Your task to perform on an android device: refresh tabs in the chrome app Image 0: 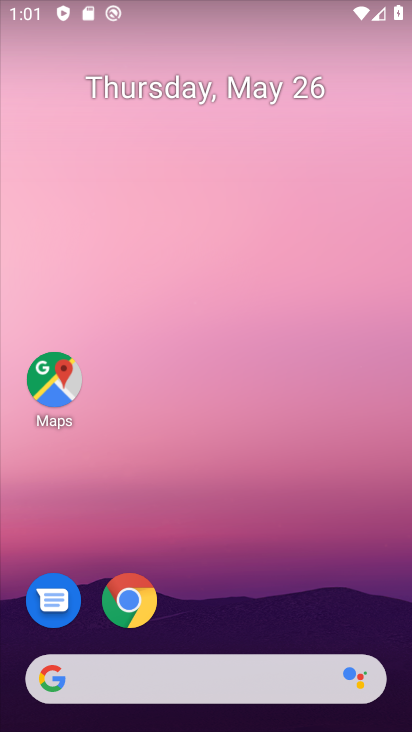
Step 0: click (127, 602)
Your task to perform on an android device: refresh tabs in the chrome app Image 1: 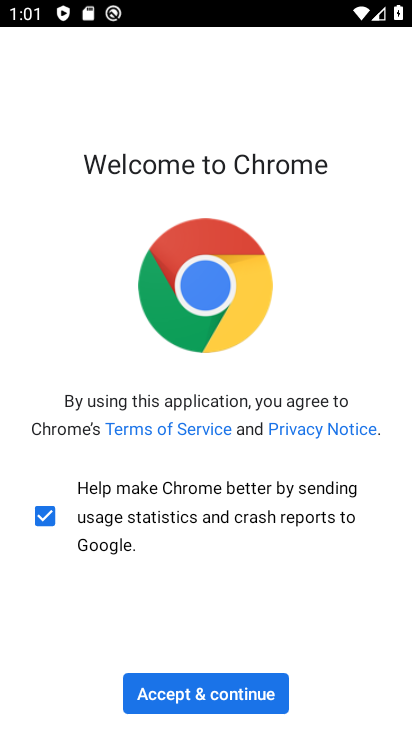
Step 1: click (194, 690)
Your task to perform on an android device: refresh tabs in the chrome app Image 2: 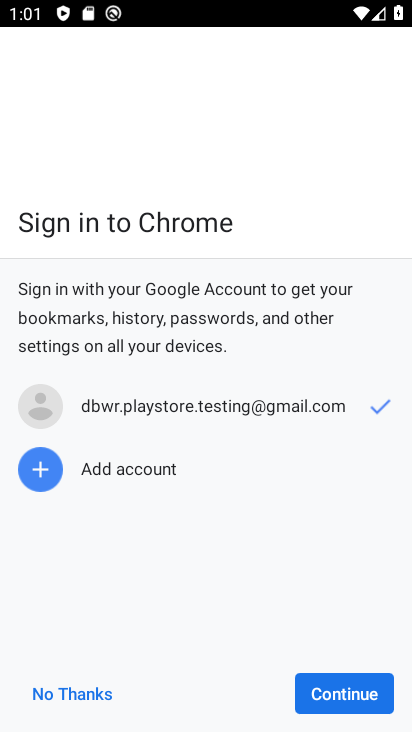
Step 2: click (333, 691)
Your task to perform on an android device: refresh tabs in the chrome app Image 3: 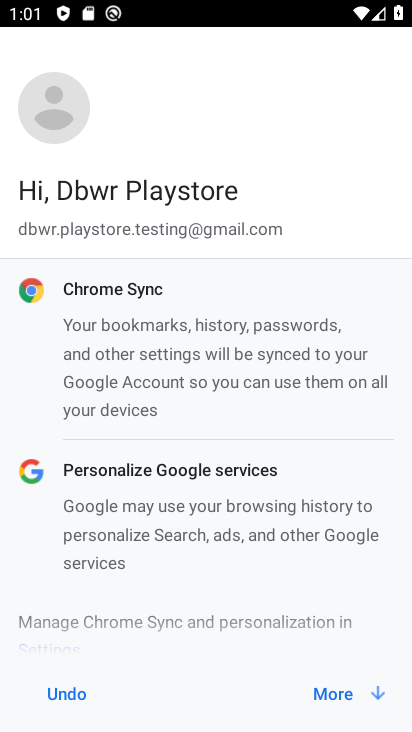
Step 3: click (333, 691)
Your task to perform on an android device: refresh tabs in the chrome app Image 4: 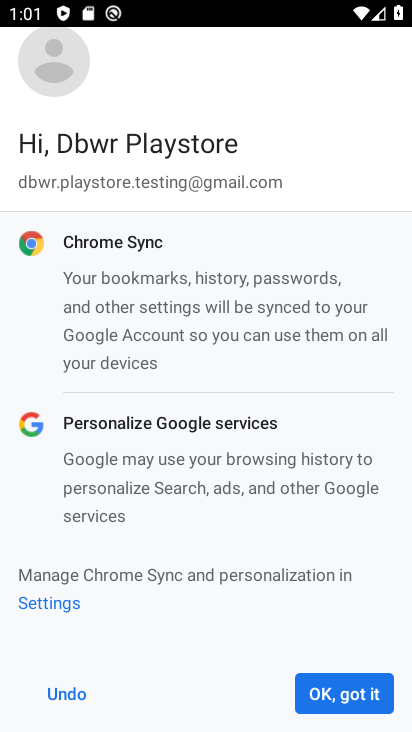
Step 4: click (333, 691)
Your task to perform on an android device: refresh tabs in the chrome app Image 5: 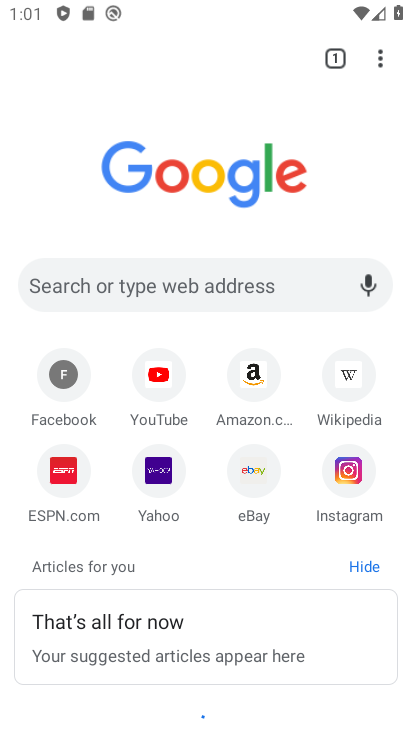
Step 5: click (380, 57)
Your task to perform on an android device: refresh tabs in the chrome app Image 6: 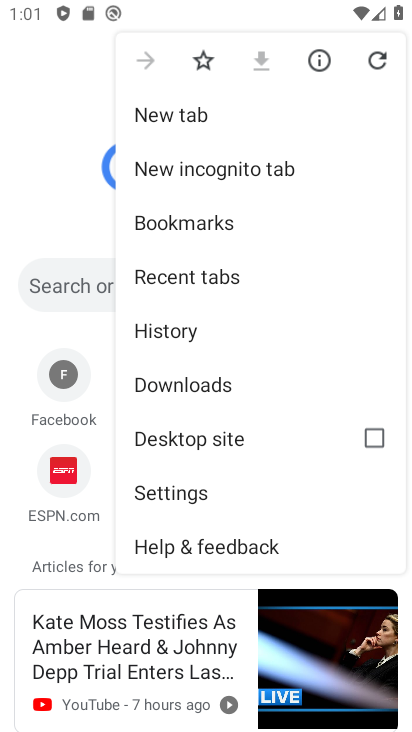
Step 6: click (380, 57)
Your task to perform on an android device: refresh tabs in the chrome app Image 7: 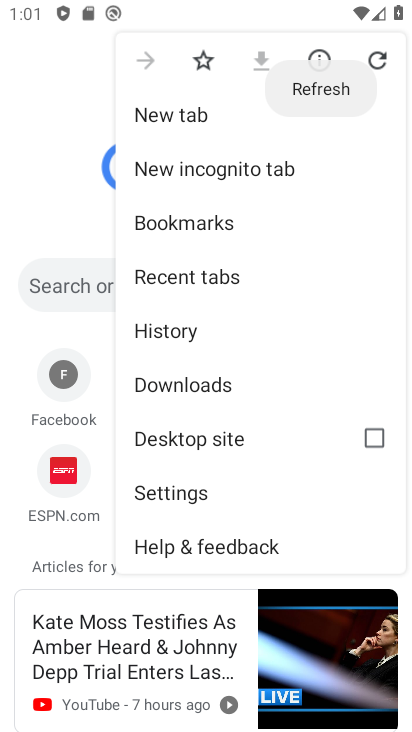
Step 7: click (380, 57)
Your task to perform on an android device: refresh tabs in the chrome app Image 8: 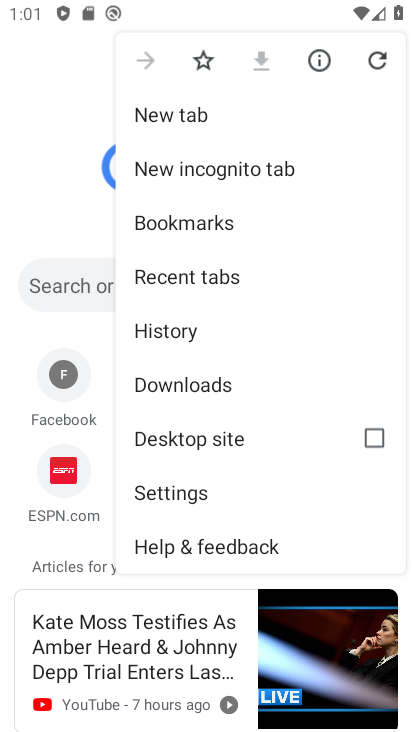
Step 8: task complete